Your task to perform on an android device: Open accessibility settings Image 0: 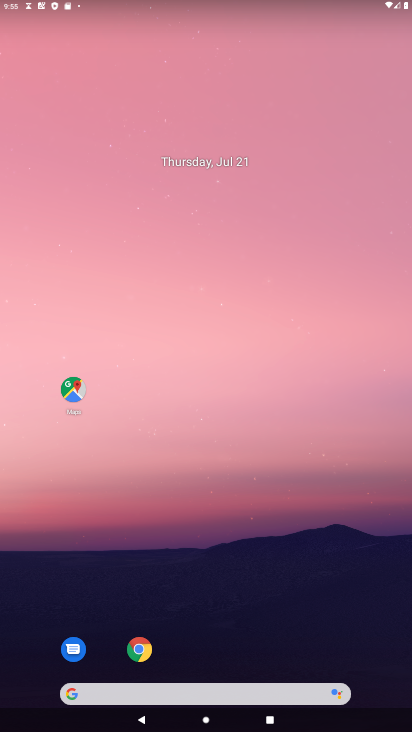
Step 0: drag from (315, 638) to (323, 202)
Your task to perform on an android device: Open accessibility settings Image 1: 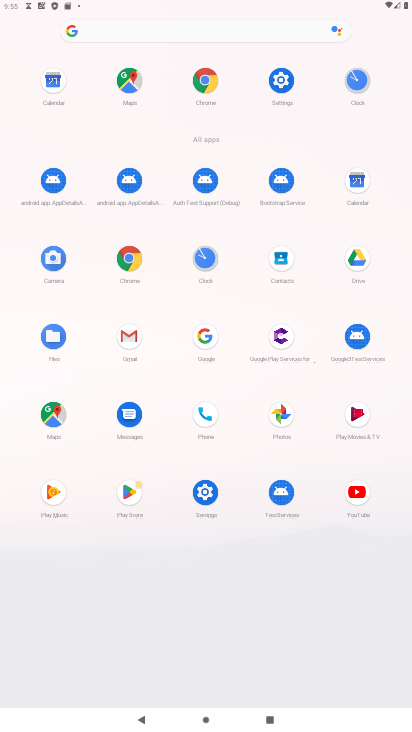
Step 1: click (208, 492)
Your task to perform on an android device: Open accessibility settings Image 2: 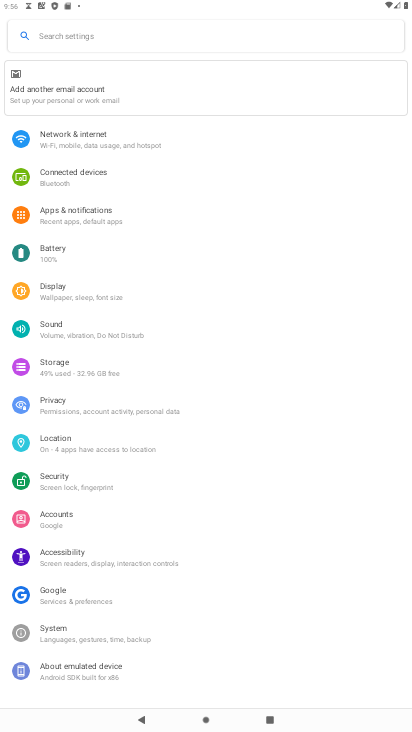
Step 2: click (69, 556)
Your task to perform on an android device: Open accessibility settings Image 3: 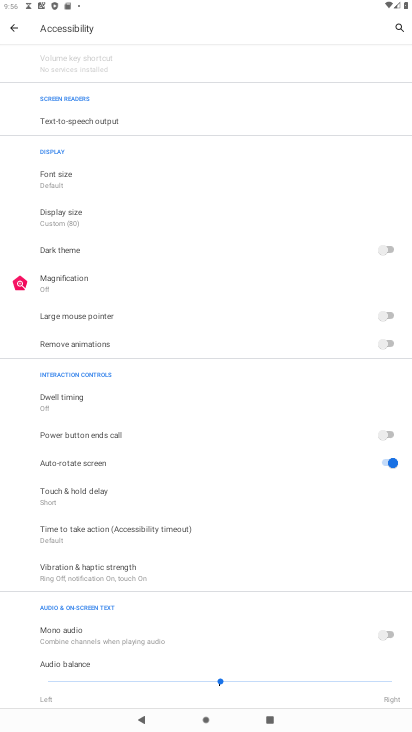
Step 3: task complete